Your task to perform on an android device: Open Google Image 0: 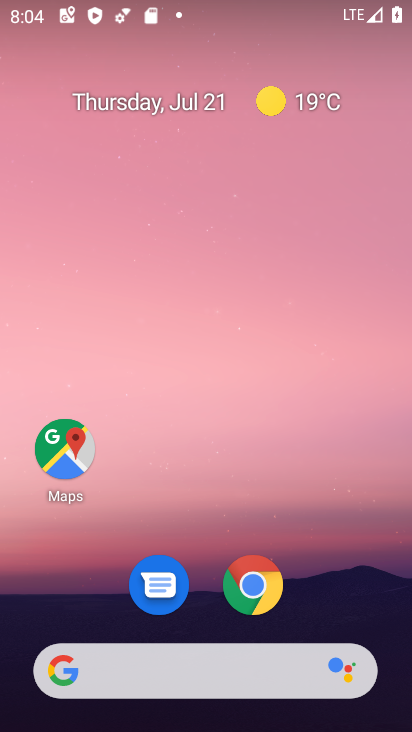
Step 0: click (214, 674)
Your task to perform on an android device: Open Google Image 1: 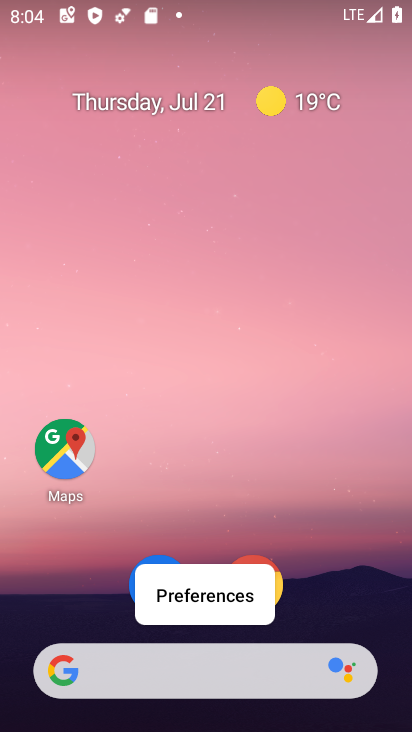
Step 1: click (200, 680)
Your task to perform on an android device: Open Google Image 2: 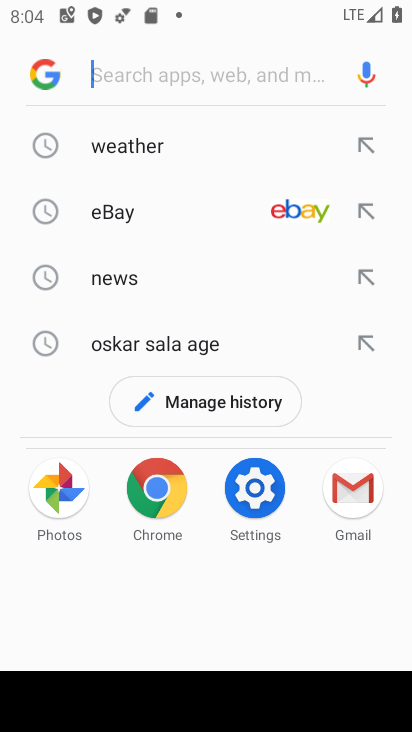
Step 2: click (36, 71)
Your task to perform on an android device: Open Google Image 3: 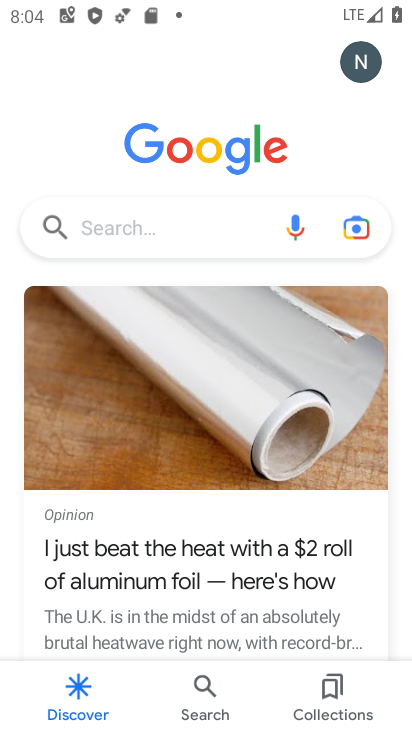
Step 3: task complete